Your task to perform on an android device: turn notification dots off Image 0: 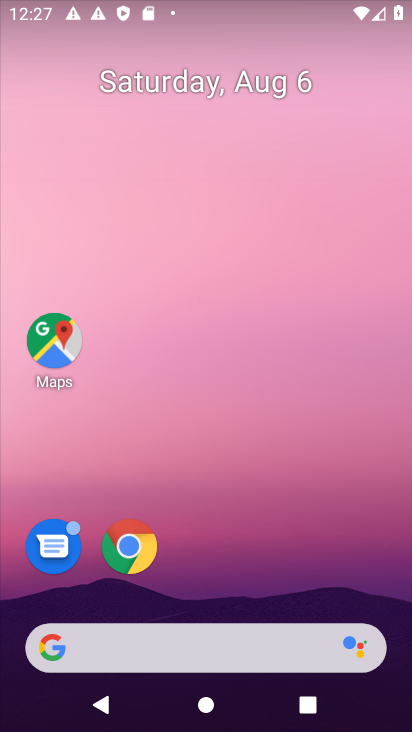
Step 0: drag from (334, 588) to (350, 89)
Your task to perform on an android device: turn notification dots off Image 1: 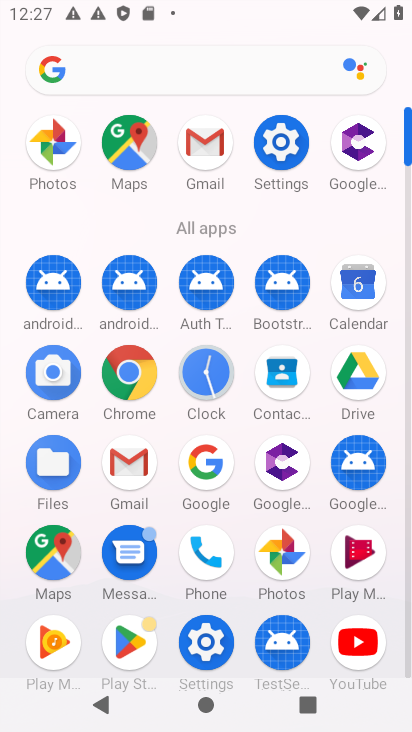
Step 1: click (203, 641)
Your task to perform on an android device: turn notification dots off Image 2: 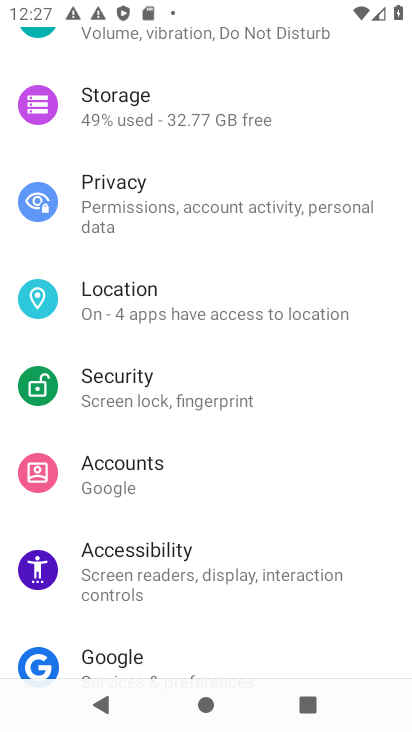
Step 2: drag from (333, 183) to (339, 435)
Your task to perform on an android device: turn notification dots off Image 3: 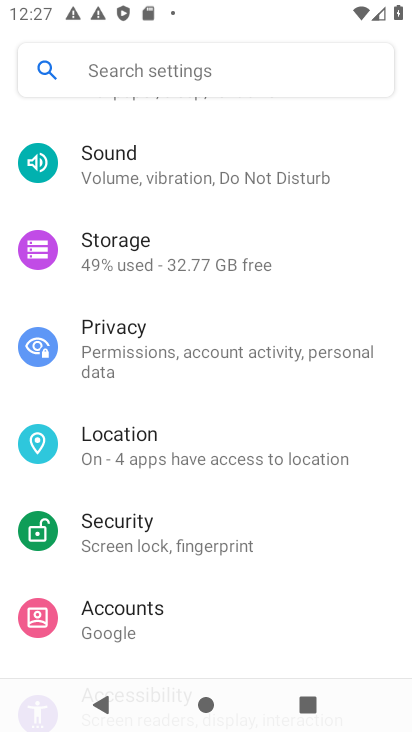
Step 3: drag from (354, 215) to (364, 646)
Your task to perform on an android device: turn notification dots off Image 4: 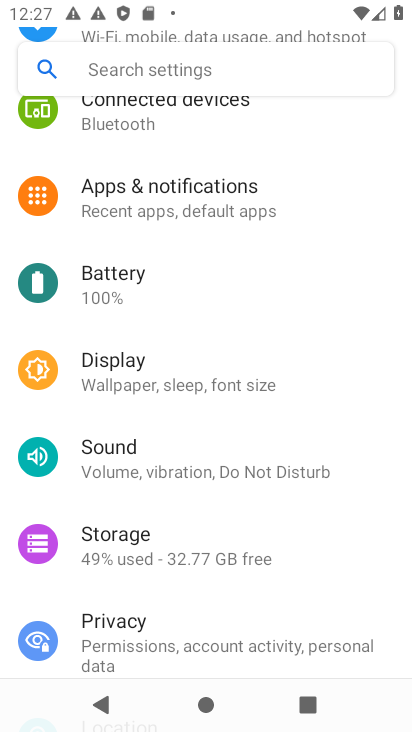
Step 4: click (127, 190)
Your task to perform on an android device: turn notification dots off Image 5: 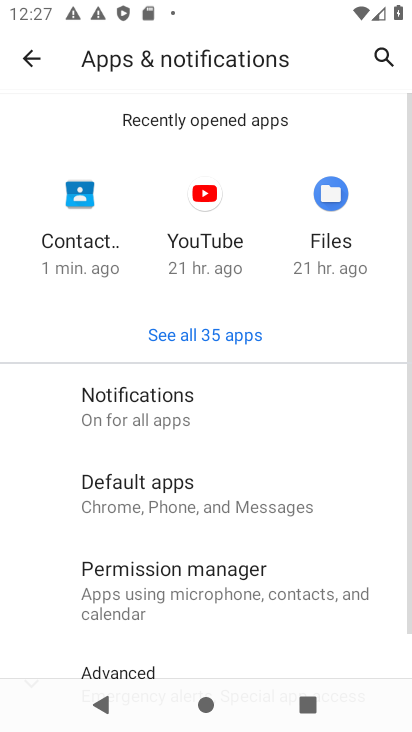
Step 5: click (111, 386)
Your task to perform on an android device: turn notification dots off Image 6: 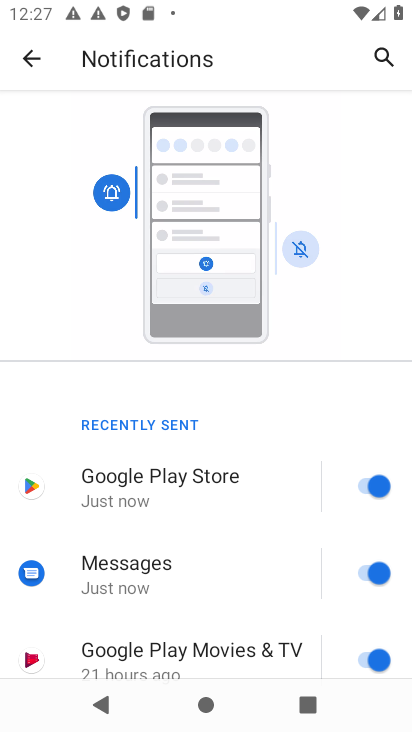
Step 6: drag from (297, 615) to (326, 190)
Your task to perform on an android device: turn notification dots off Image 7: 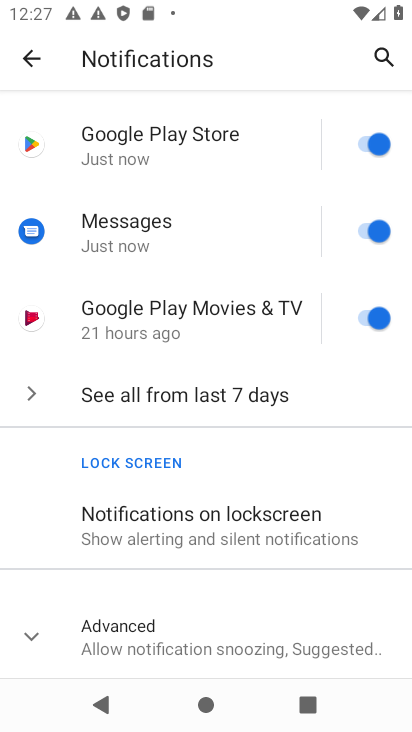
Step 7: click (27, 643)
Your task to perform on an android device: turn notification dots off Image 8: 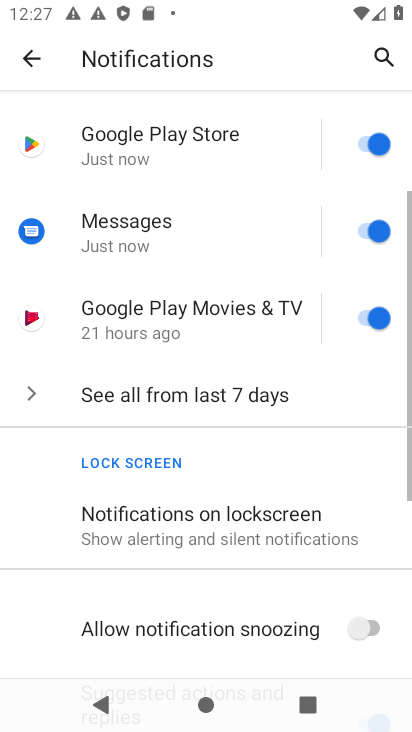
Step 8: drag from (260, 627) to (265, 173)
Your task to perform on an android device: turn notification dots off Image 9: 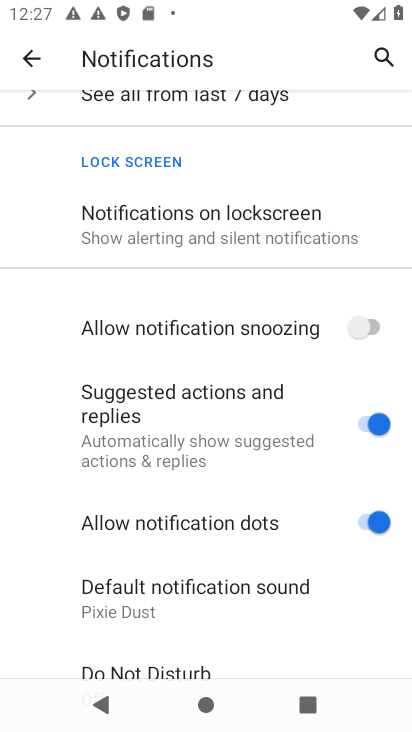
Step 9: click (357, 522)
Your task to perform on an android device: turn notification dots off Image 10: 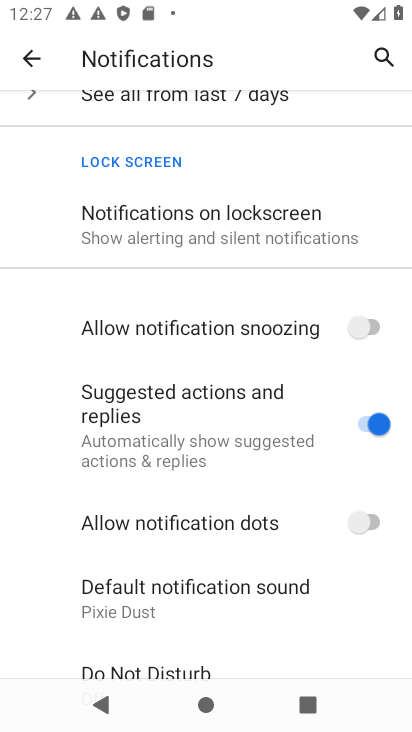
Step 10: task complete